Your task to perform on an android device: Search for seafood restaurants on Google Maps Image 0: 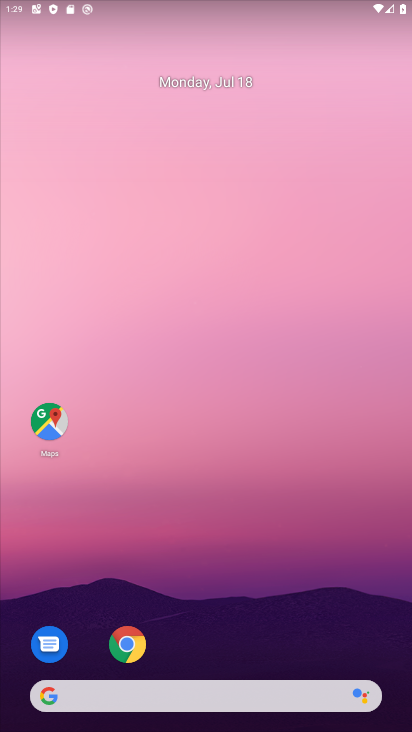
Step 0: click (44, 418)
Your task to perform on an android device: Search for seafood restaurants on Google Maps Image 1: 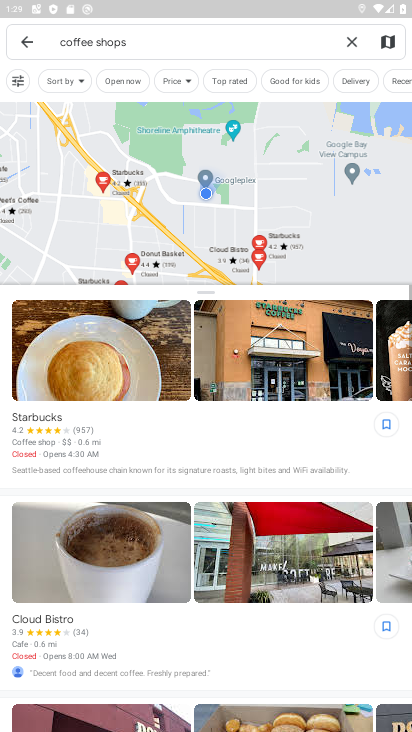
Step 1: click (213, 36)
Your task to perform on an android device: Search for seafood restaurants on Google Maps Image 2: 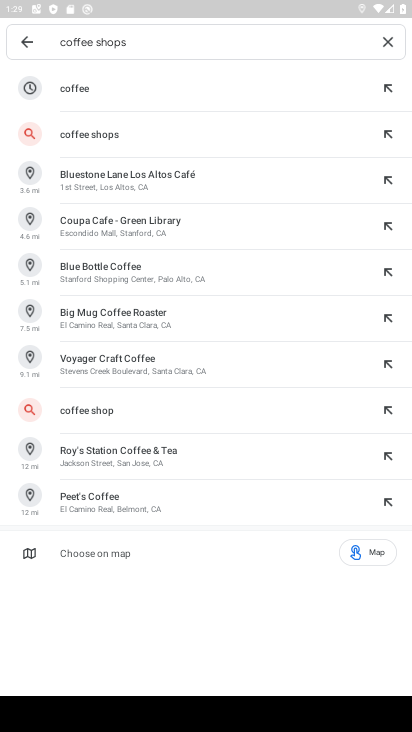
Step 2: click (386, 33)
Your task to perform on an android device: Search for seafood restaurants on Google Maps Image 3: 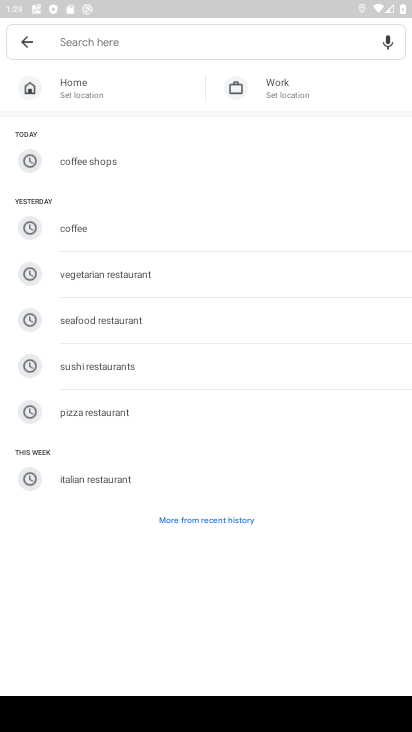
Step 3: type "seafood restaurants"
Your task to perform on an android device: Search for seafood restaurants on Google Maps Image 4: 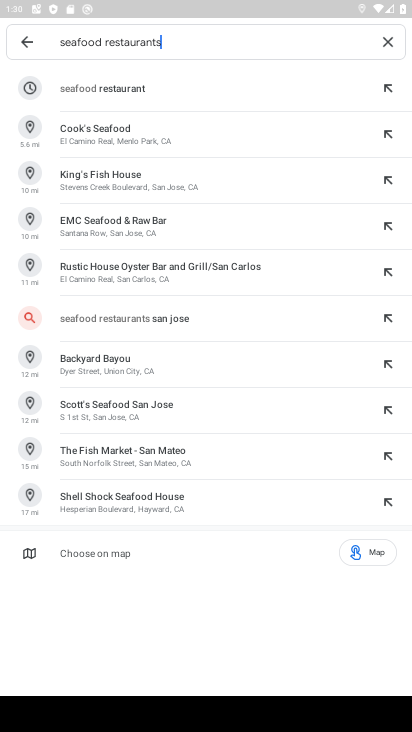
Step 4: click (324, 83)
Your task to perform on an android device: Search for seafood restaurants on Google Maps Image 5: 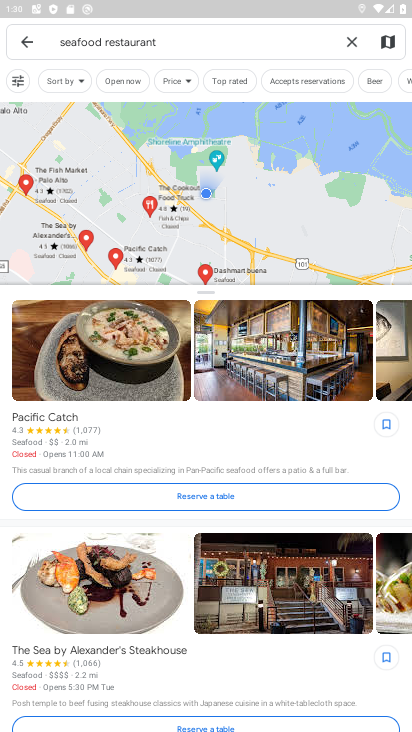
Step 5: task complete